Your task to perform on an android device: Open Yahoo.com Image 0: 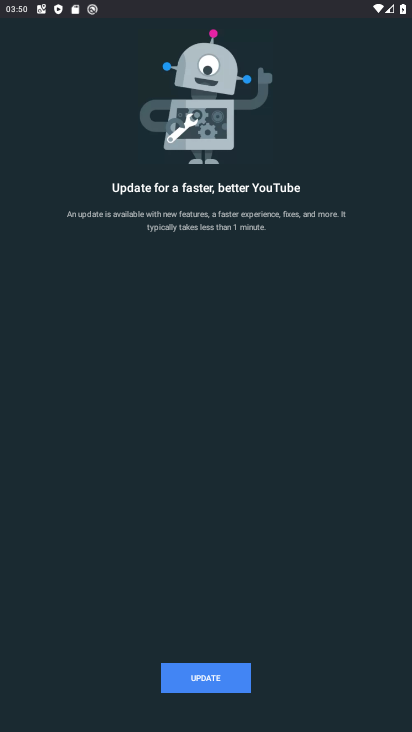
Step 0: press home button
Your task to perform on an android device: Open Yahoo.com Image 1: 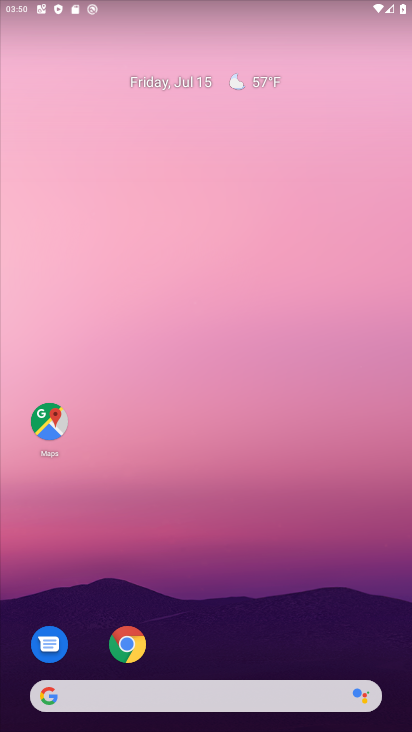
Step 1: click (134, 647)
Your task to perform on an android device: Open Yahoo.com Image 2: 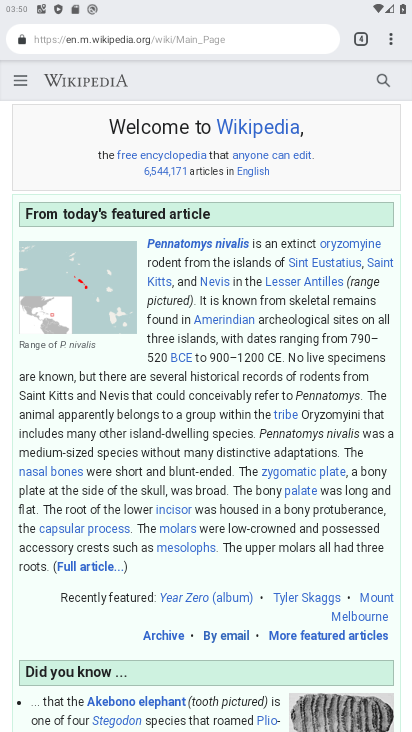
Step 2: click (162, 34)
Your task to perform on an android device: Open Yahoo.com Image 3: 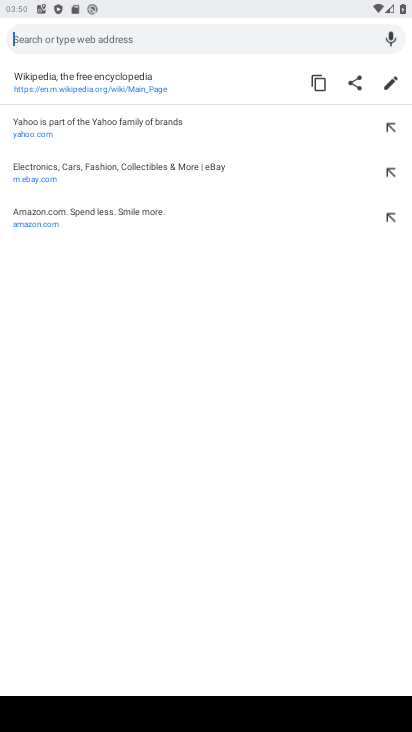
Step 3: type "yahoo.com"
Your task to perform on an android device: Open Yahoo.com Image 4: 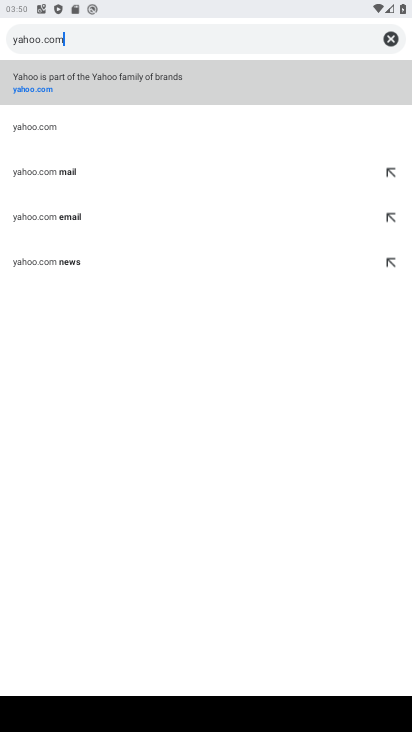
Step 4: click (51, 86)
Your task to perform on an android device: Open Yahoo.com Image 5: 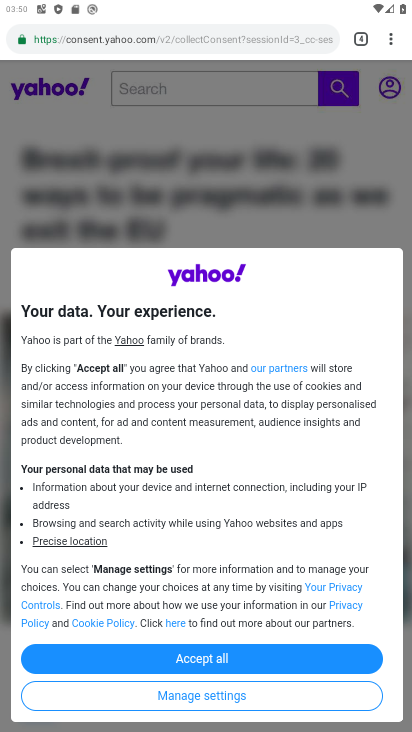
Step 5: task complete